Your task to perform on an android device: Go to Wikipedia Image 0: 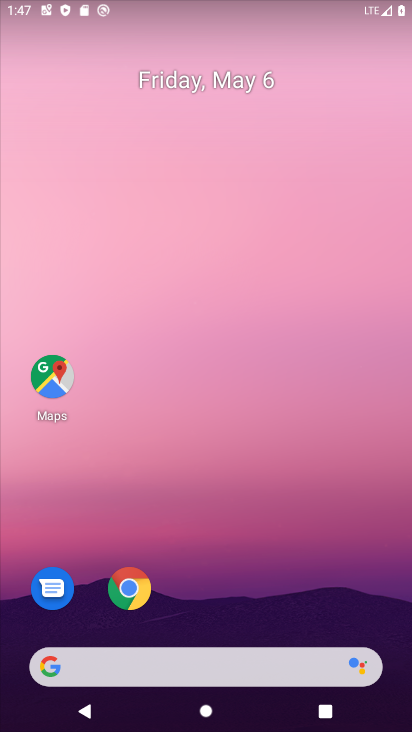
Step 0: press home button
Your task to perform on an android device: Go to Wikipedia Image 1: 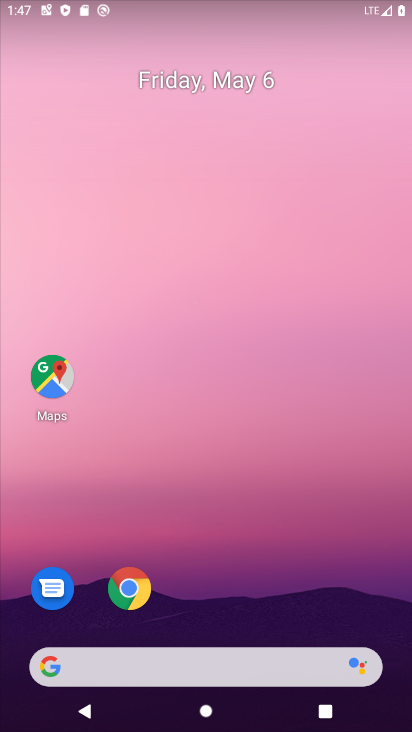
Step 1: drag from (354, 572) to (350, 153)
Your task to perform on an android device: Go to Wikipedia Image 2: 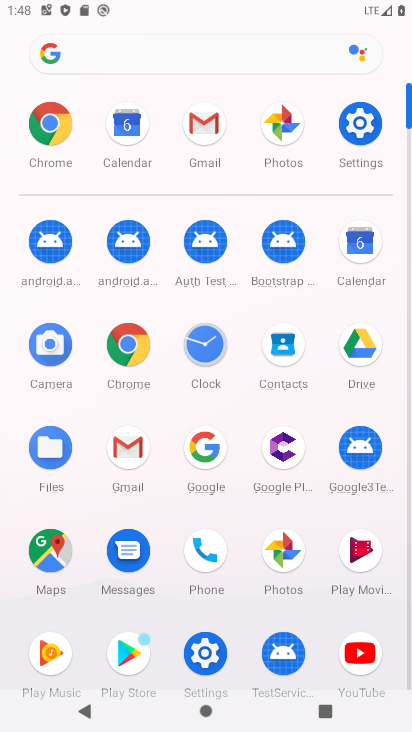
Step 2: click (118, 338)
Your task to perform on an android device: Go to Wikipedia Image 3: 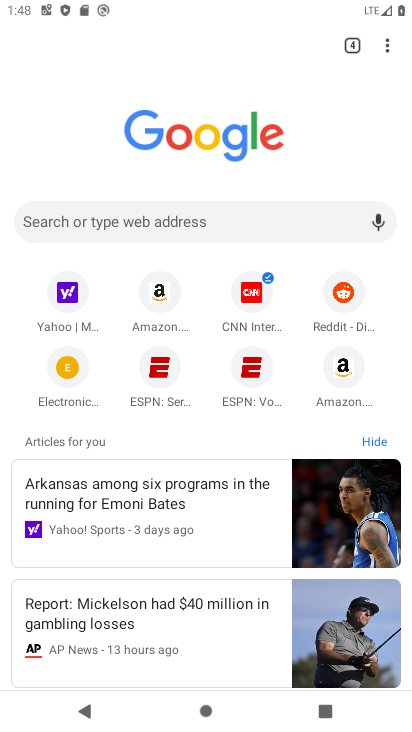
Step 3: click (160, 228)
Your task to perform on an android device: Go to Wikipedia Image 4: 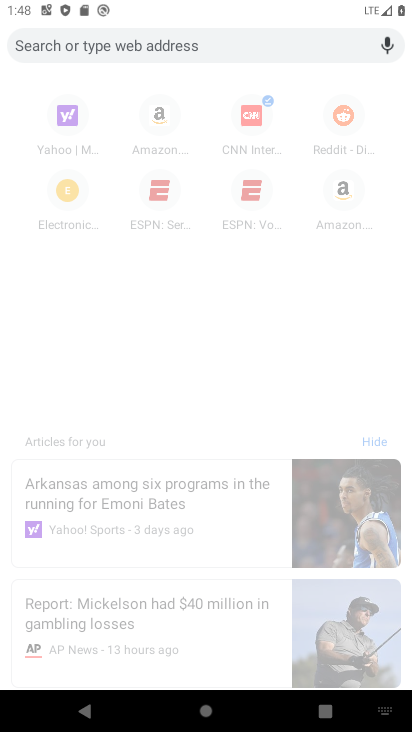
Step 4: type "wikipedia"
Your task to perform on an android device: Go to Wikipedia Image 5: 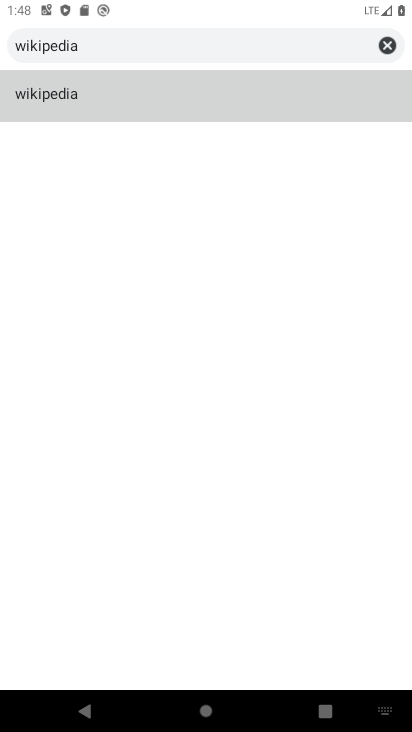
Step 5: click (54, 91)
Your task to perform on an android device: Go to Wikipedia Image 6: 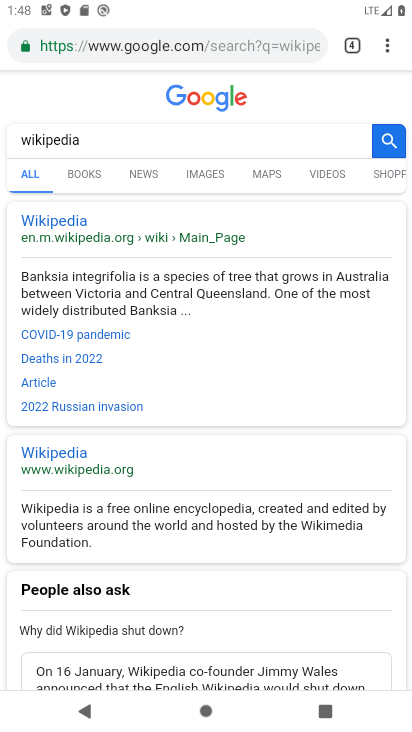
Step 6: click (78, 217)
Your task to perform on an android device: Go to Wikipedia Image 7: 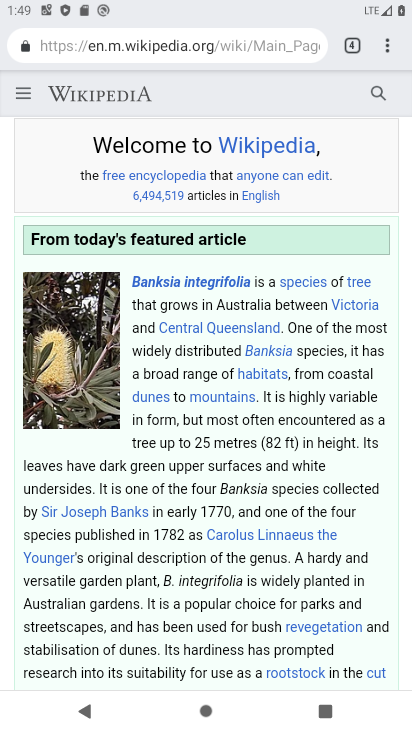
Step 7: task complete